Your task to perform on an android device: Open the calendar and show me this week's events? Image 0: 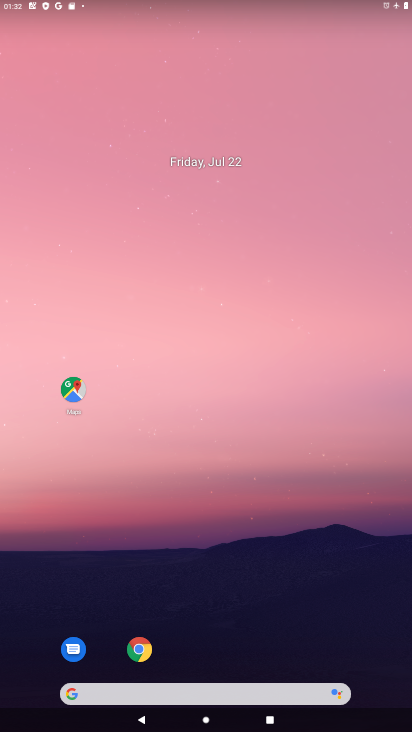
Step 0: drag from (285, 620) to (190, 102)
Your task to perform on an android device: Open the calendar and show me this week's events? Image 1: 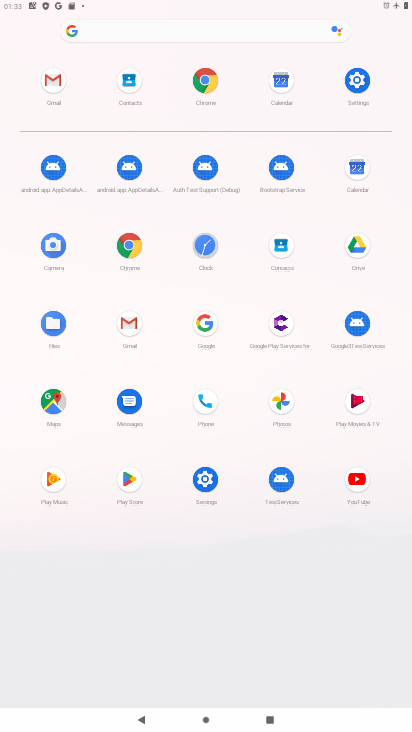
Step 1: click (354, 169)
Your task to perform on an android device: Open the calendar and show me this week's events? Image 2: 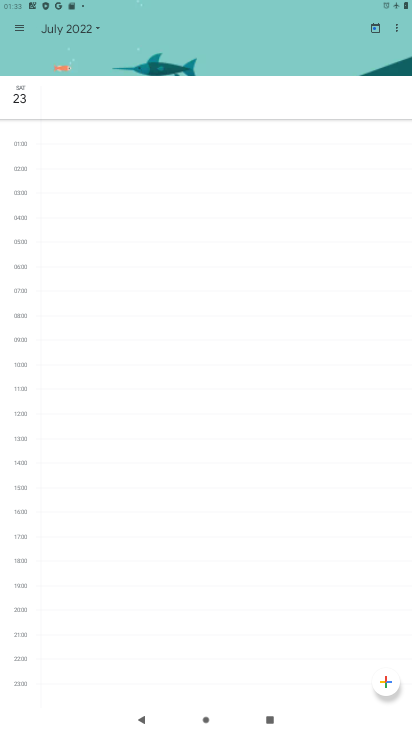
Step 2: click (71, 32)
Your task to perform on an android device: Open the calendar and show me this week's events? Image 3: 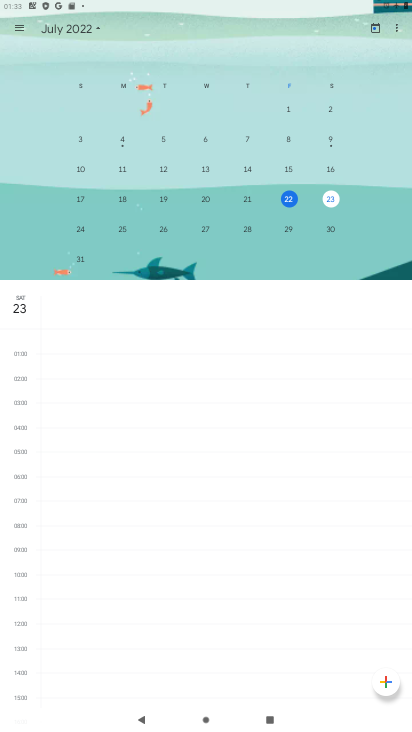
Step 3: drag from (330, 161) to (7, 145)
Your task to perform on an android device: Open the calendar and show me this week's events? Image 4: 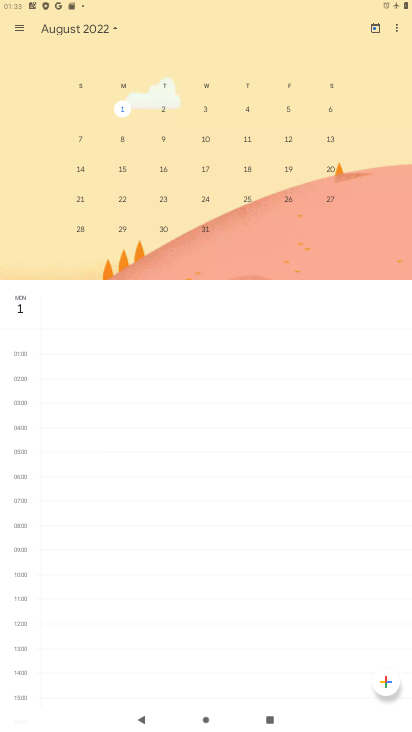
Step 4: drag from (19, 180) to (390, 187)
Your task to perform on an android device: Open the calendar and show me this week's events? Image 5: 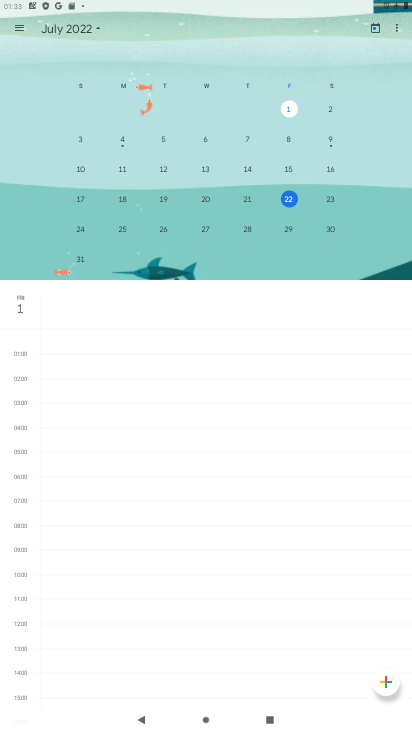
Step 5: click (18, 26)
Your task to perform on an android device: Open the calendar and show me this week's events? Image 6: 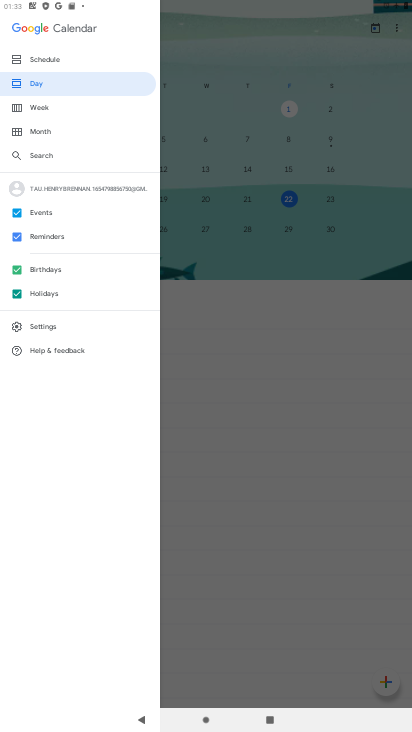
Step 6: click (47, 110)
Your task to perform on an android device: Open the calendar and show me this week's events? Image 7: 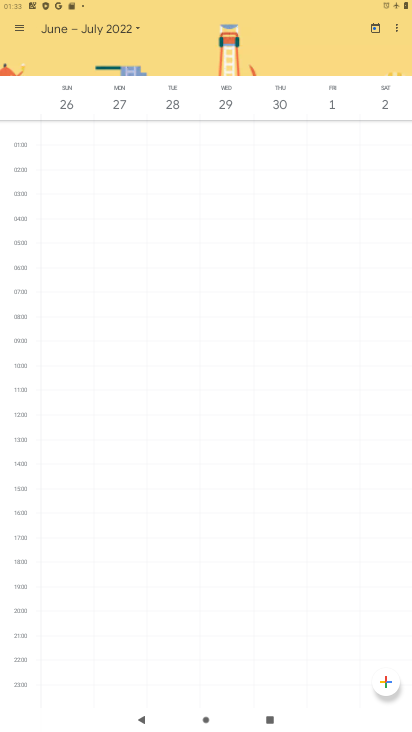
Step 7: task complete